Your task to perform on an android device: turn on translation in the chrome app Image 0: 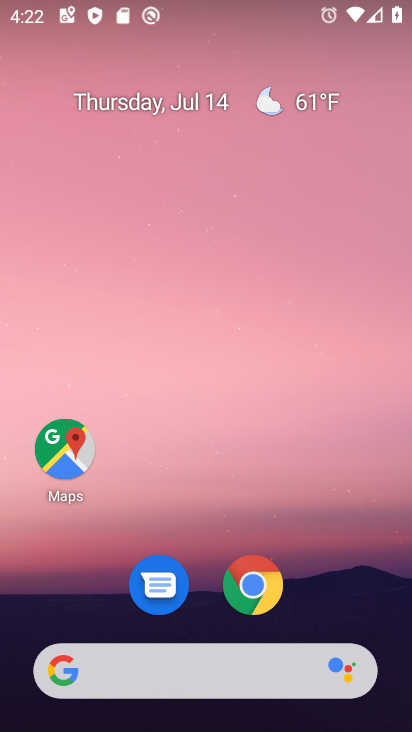
Step 0: click (247, 581)
Your task to perform on an android device: turn on translation in the chrome app Image 1: 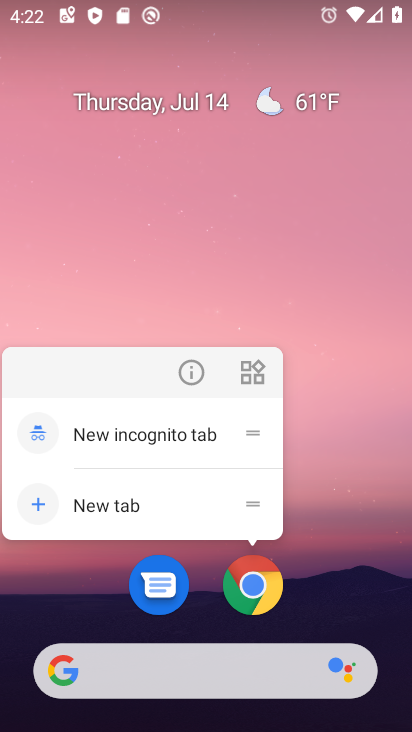
Step 1: click (247, 582)
Your task to perform on an android device: turn on translation in the chrome app Image 2: 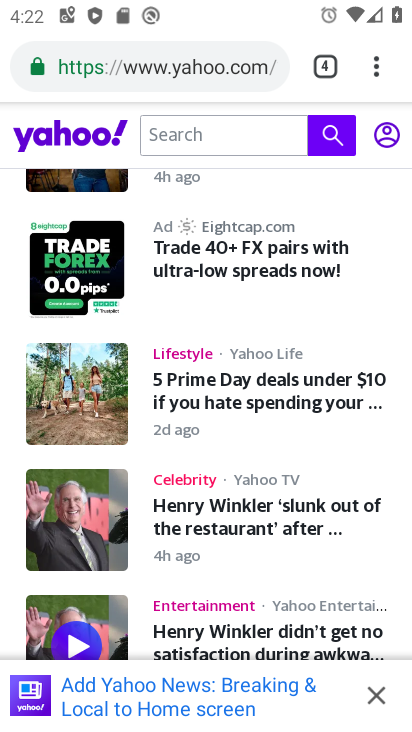
Step 2: click (375, 63)
Your task to perform on an android device: turn on translation in the chrome app Image 3: 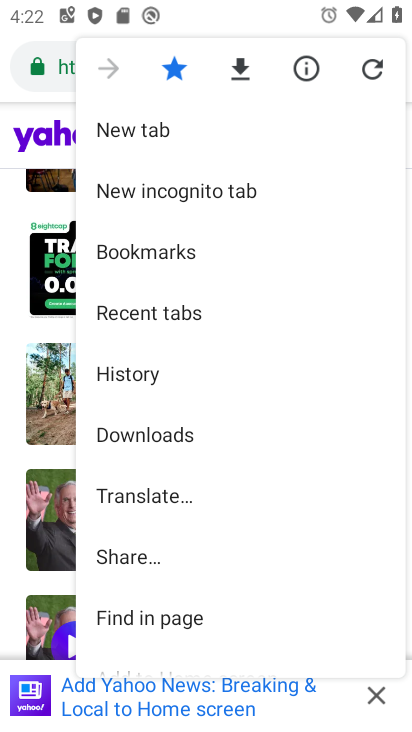
Step 3: drag from (217, 541) to (231, 118)
Your task to perform on an android device: turn on translation in the chrome app Image 4: 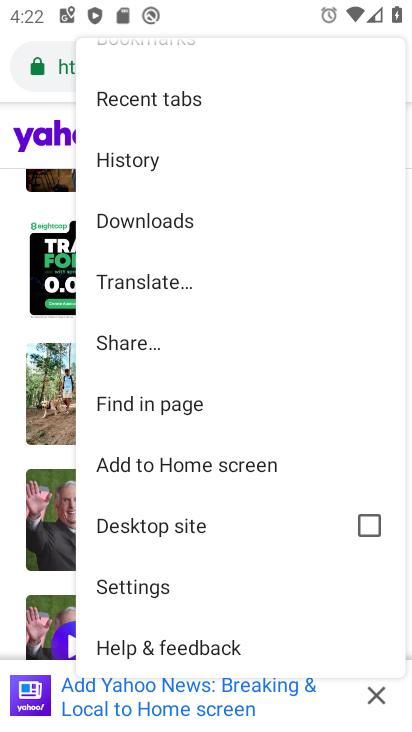
Step 4: click (162, 581)
Your task to perform on an android device: turn on translation in the chrome app Image 5: 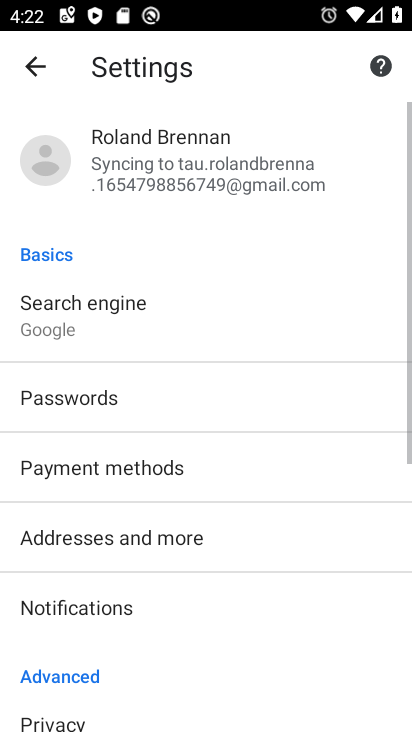
Step 5: drag from (248, 547) to (289, 149)
Your task to perform on an android device: turn on translation in the chrome app Image 6: 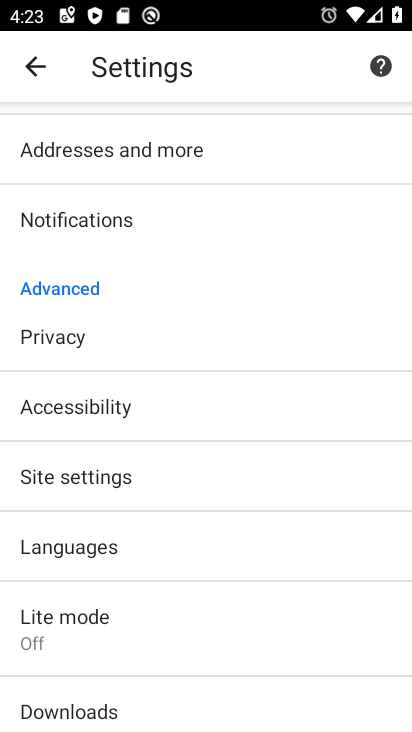
Step 6: click (114, 543)
Your task to perform on an android device: turn on translation in the chrome app Image 7: 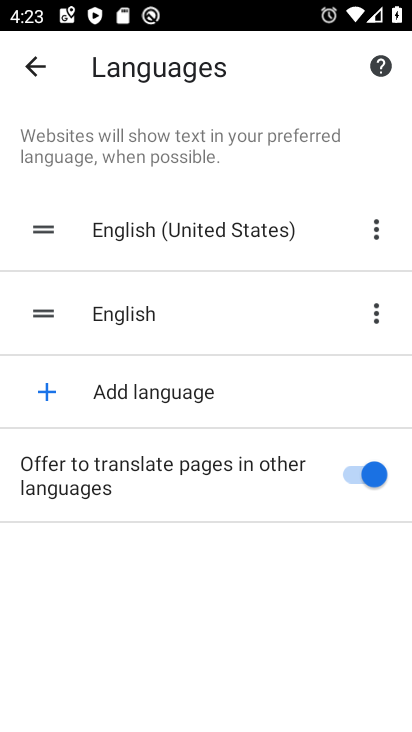
Step 7: task complete